Your task to perform on an android device: remove spam from my inbox in the gmail app Image 0: 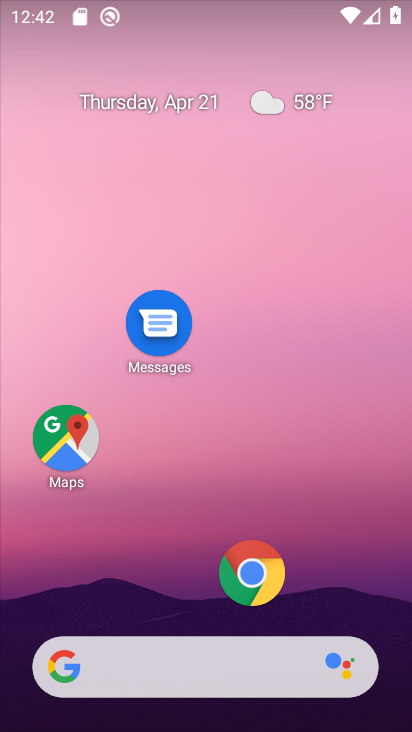
Step 0: drag from (173, 577) to (219, 111)
Your task to perform on an android device: remove spam from my inbox in the gmail app Image 1: 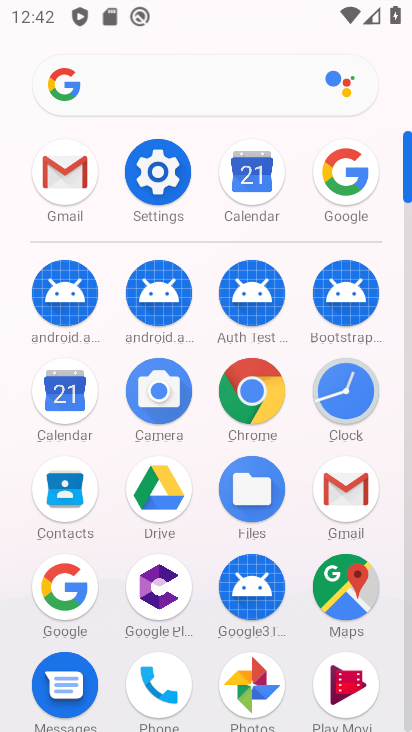
Step 1: click (64, 171)
Your task to perform on an android device: remove spam from my inbox in the gmail app Image 2: 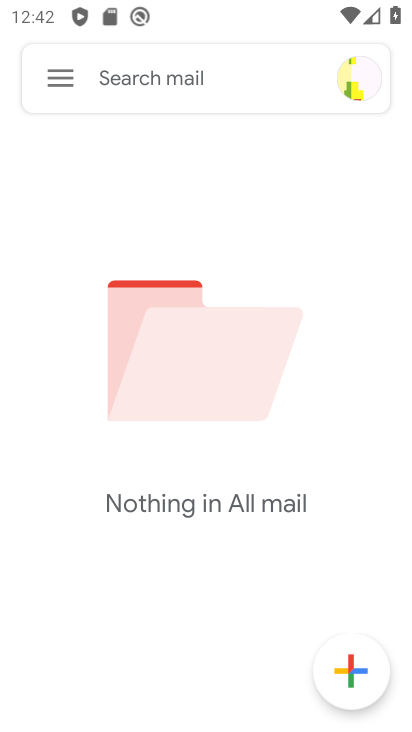
Step 2: click (50, 70)
Your task to perform on an android device: remove spam from my inbox in the gmail app Image 3: 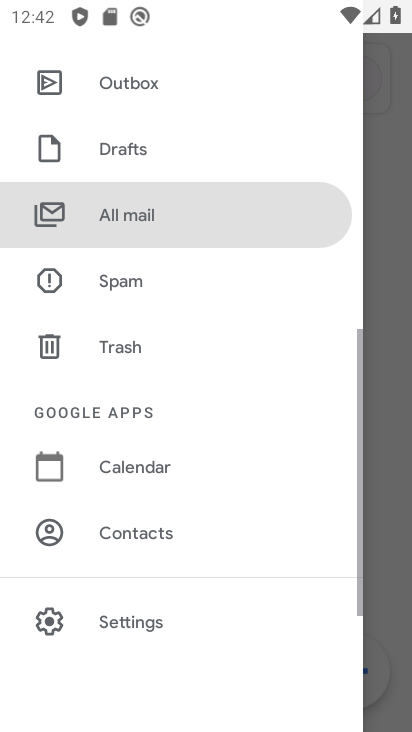
Step 3: drag from (149, 151) to (183, 636)
Your task to perform on an android device: remove spam from my inbox in the gmail app Image 4: 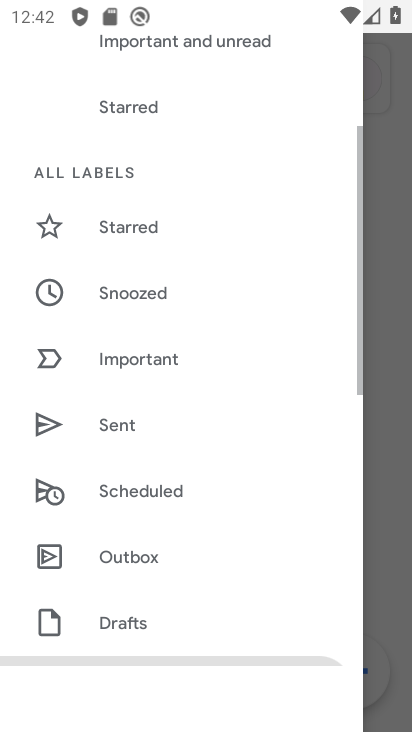
Step 4: drag from (140, 172) to (160, 505)
Your task to perform on an android device: remove spam from my inbox in the gmail app Image 5: 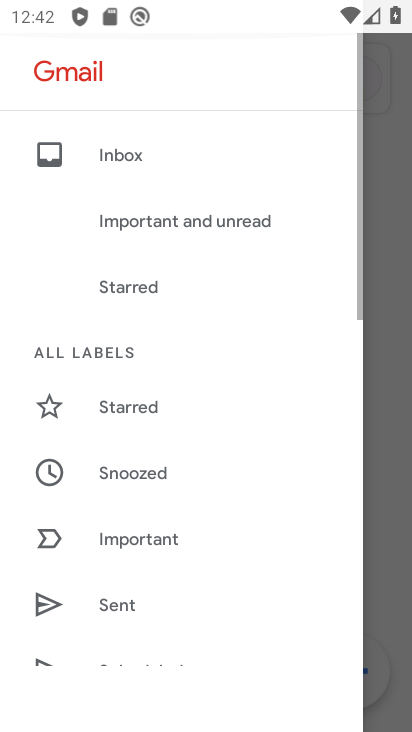
Step 5: click (128, 147)
Your task to perform on an android device: remove spam from my inbox in the gmail app Image 6: 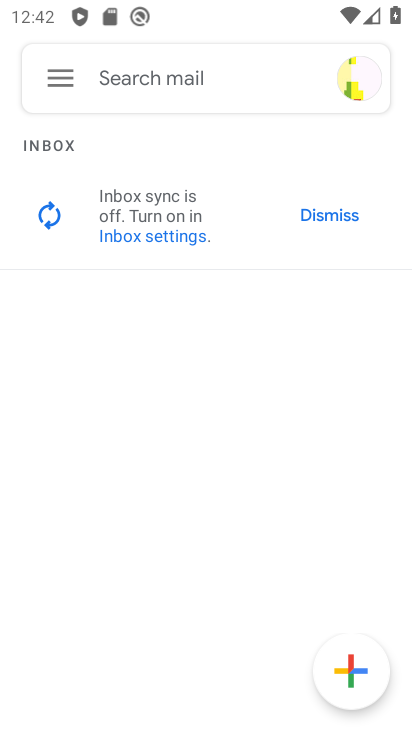
Step 6: task complete